Your task to perform on an android device: Open the phone app and click the voicemail tab. Image 0: 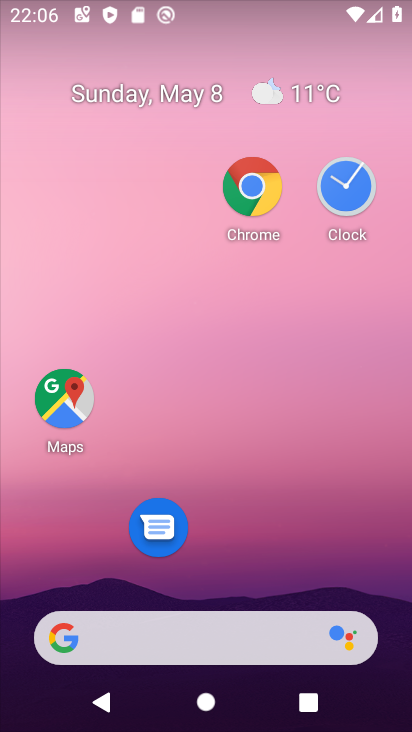
Step 0: drag from (180, 570) to (145, 212)
Your task to perform on an android device: Open the phone app and click the voicemail tab. Image 1: 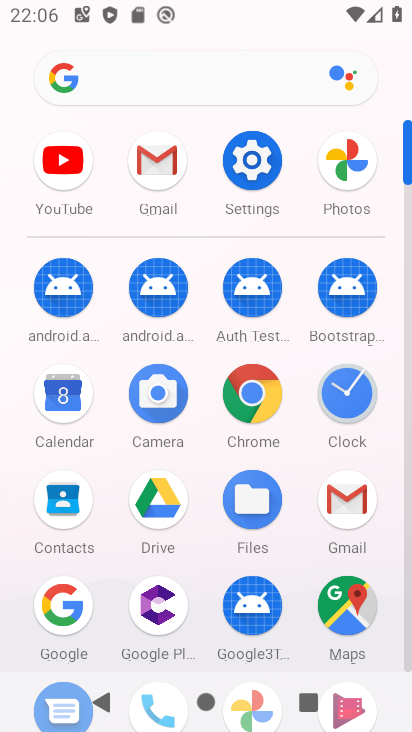
Step 1: drag from (157, 644) to (82, 351)
Your task to perform on an android device: Open the phone app and click the voicemail tab. Image 2: 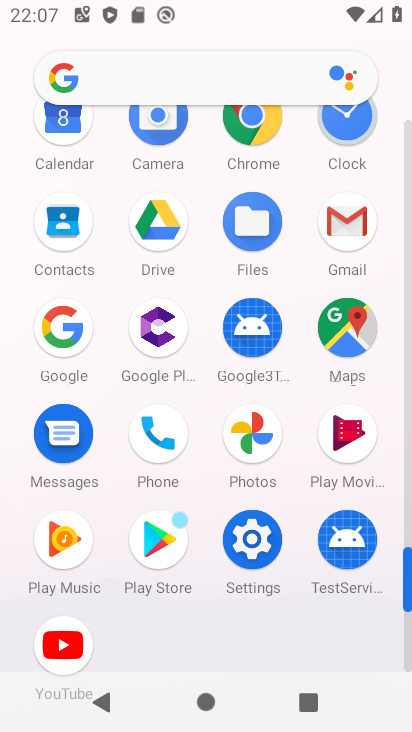
Step 2: click (156, 419)
Your task to perform on an android device: Open the phone app and click the voicemail tab. Image 3: 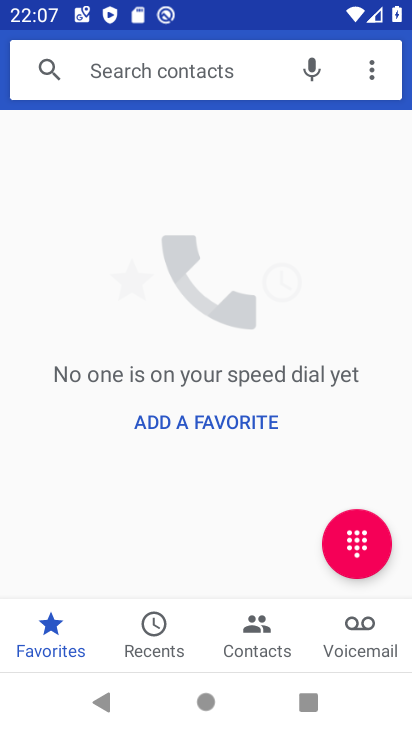
Step 3: click (337, 629)
Your task to perform on an android device: Open the phone app and click the voicemail tab. Image 4: 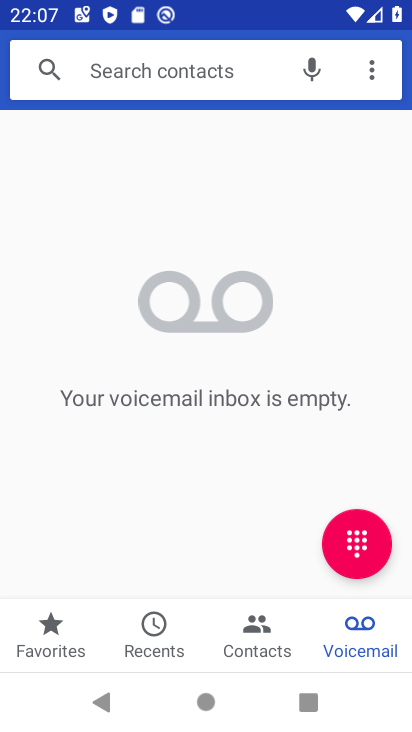
Step 4: task complete